Your task to perform on an android device: allow cookies in the chrome app Image 0: 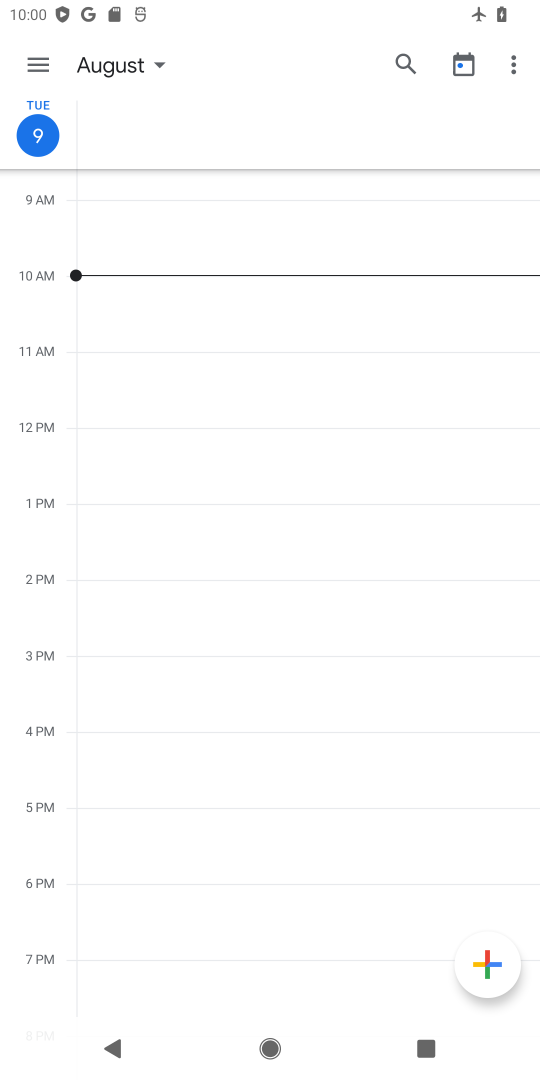
Step 0: press home button
Your task to perform on an android device: allow cookies in the chrome app Image 1: 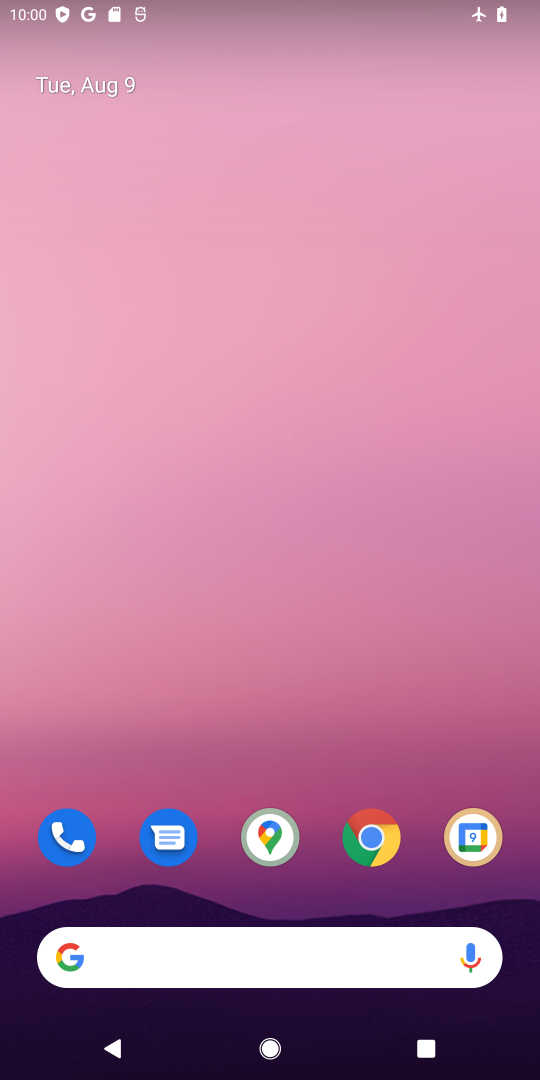
Step 1: click (375, 845)
Your task to perform on an android device: allow cookies in the chrome app Image 2: 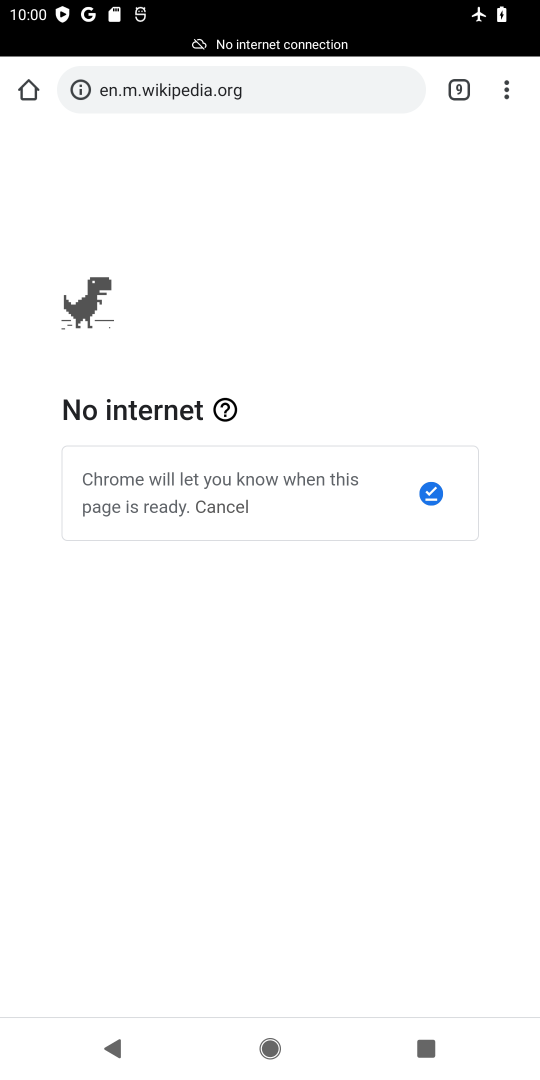
Step 2: click (509, 99)
Your task to perform on an android device: allow cookies in the chrome app Image 3: 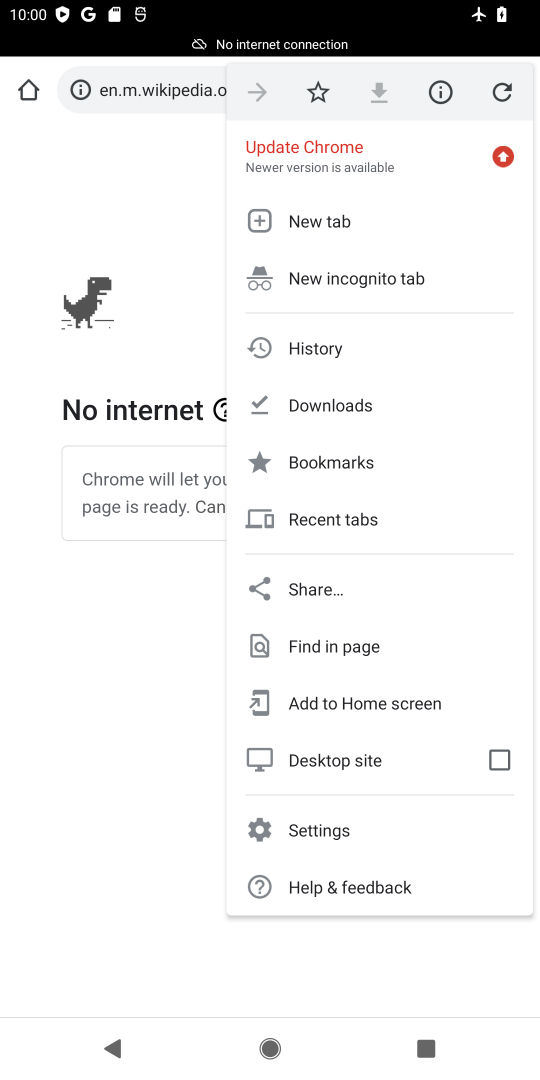
Step 3: click (321, 830)
Your task to perform on an android device: allow cookies in the chrome app Image 4: 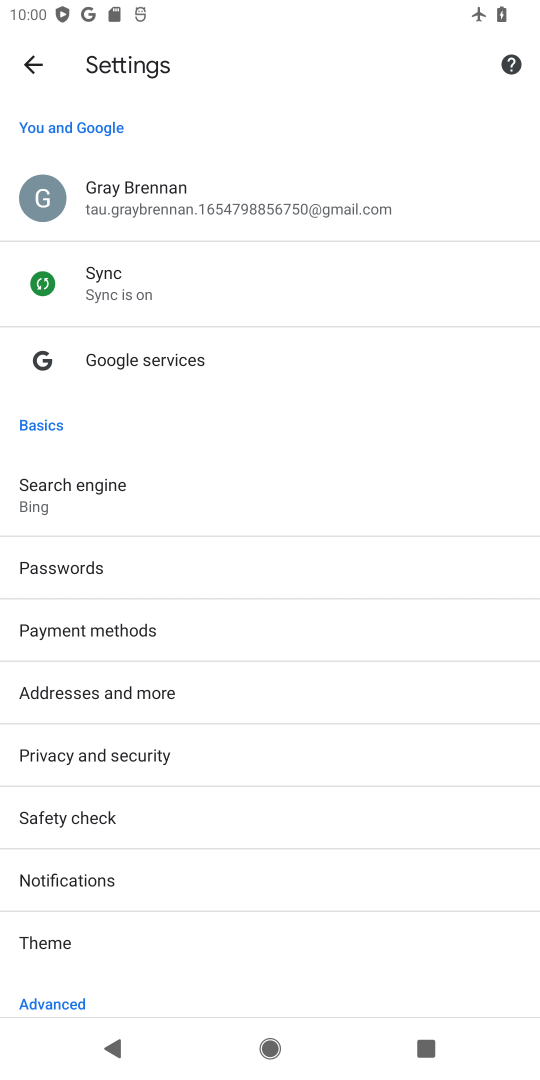
Step 4: drag from (149, 969) to (134, 647)
Your task to perform on an android device: allow cookies in the chrome app Image 5: 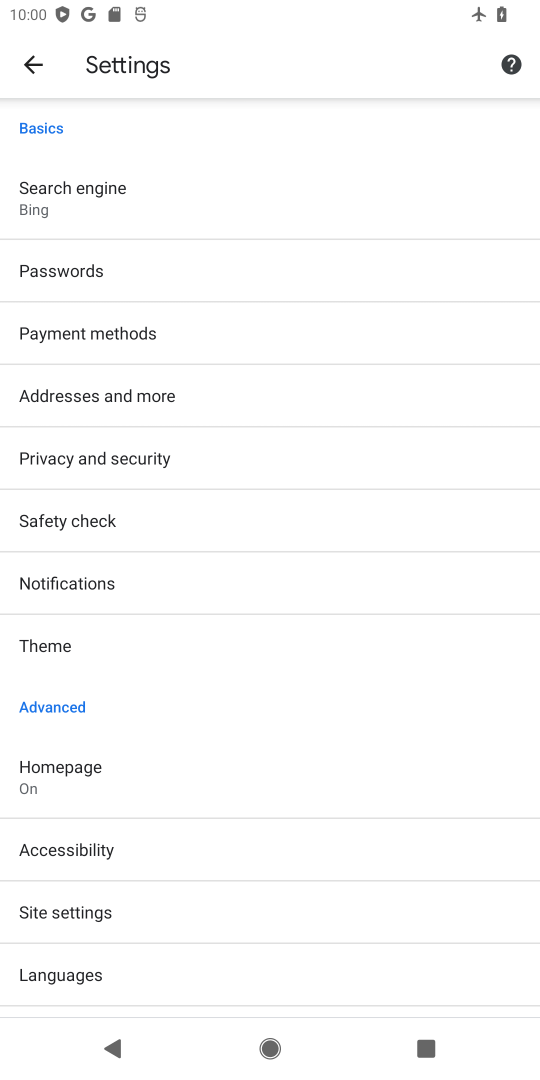
Step 5: drag from (149, 963) to (152, 562)
Your task to perform on an android device: allow cookies in the chrome app Image 6: 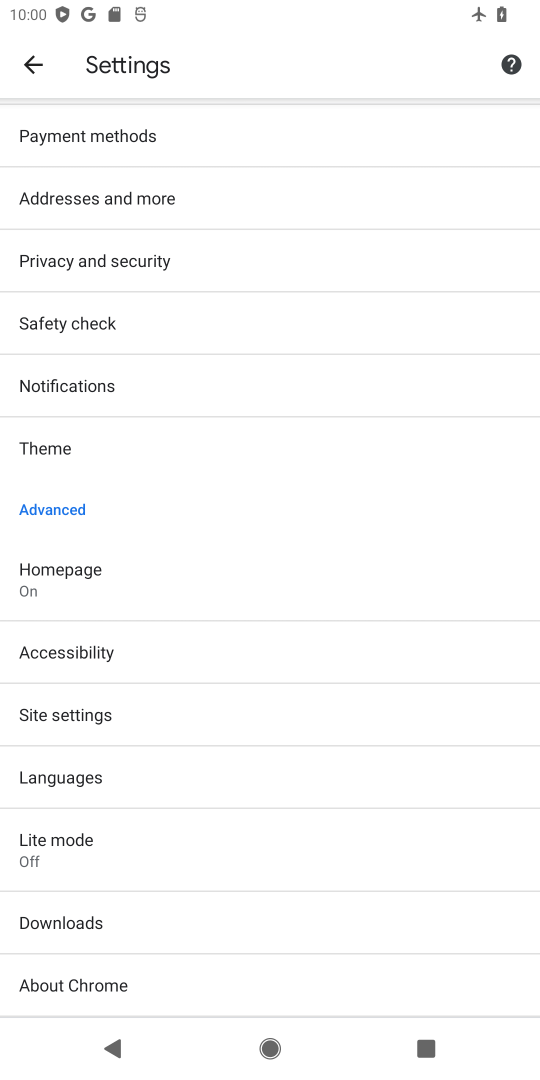
Step 6: click (97, 718)
Your task to perform on an android device: allow cookies in the chrome app Image 7: 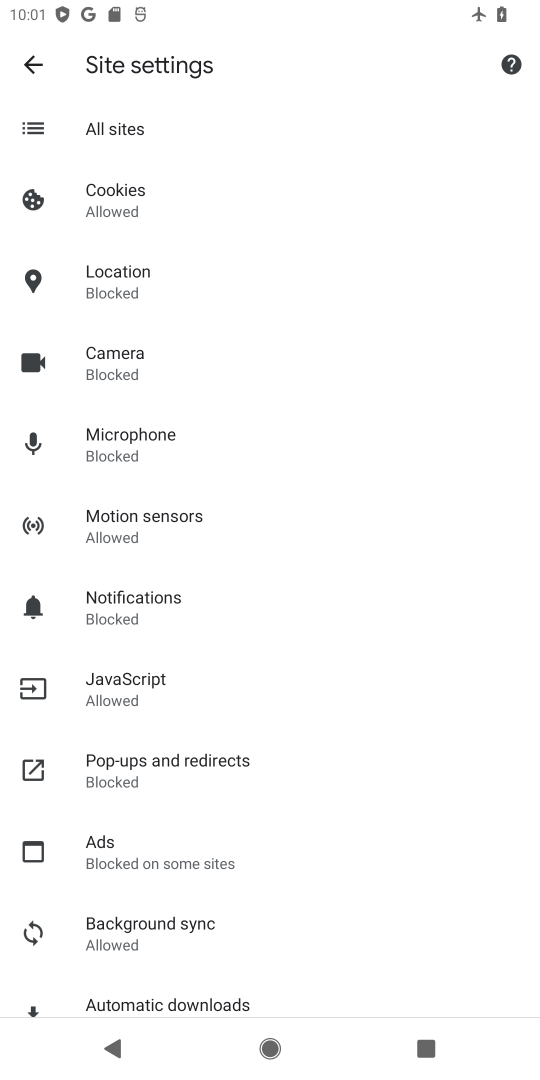
Step 7: click (114, 197)
Your task to perform on an android device: allow cookies in the chrome app Image 8: 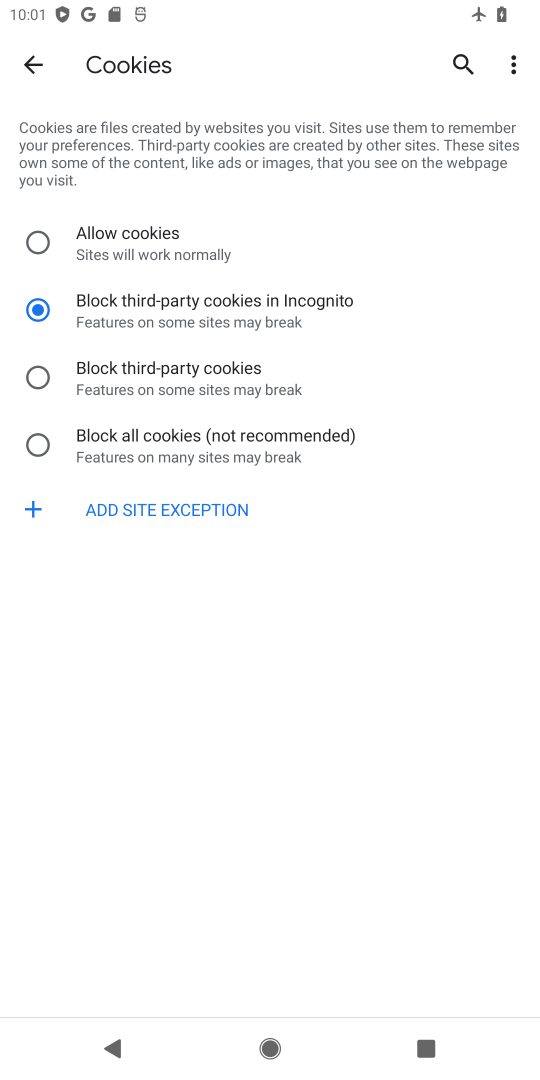
Step 8: click (35, 241)
Your task to perform on an android device: allow cookies in the chrome app Image 9: 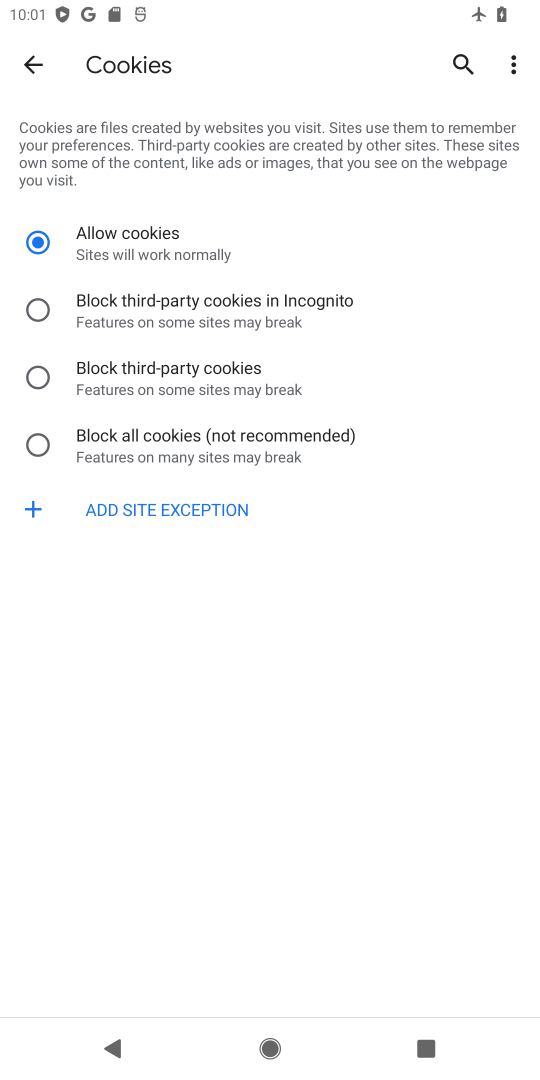
Step 9: task complete